Your task to perform on an android device: What's on my calendar today? Image 0: 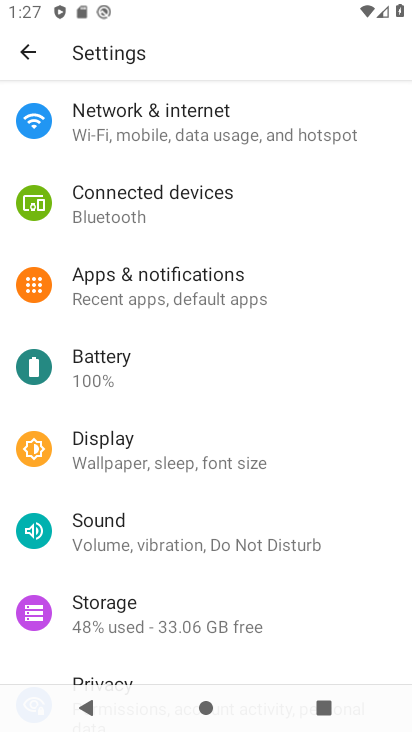
Step 0: press home button
Your task to perform on an android device: What's on my calendar today? Image 1: 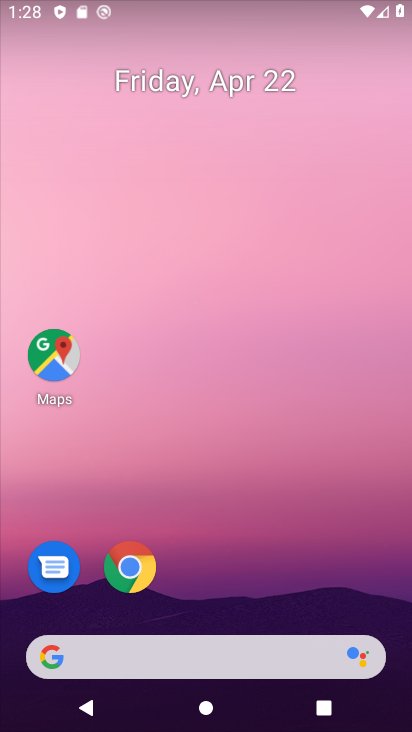
Step 1: drag from (271, 420) to (306, 52)
Your task to perform on an android device: What's on my calendar today? Image 2: 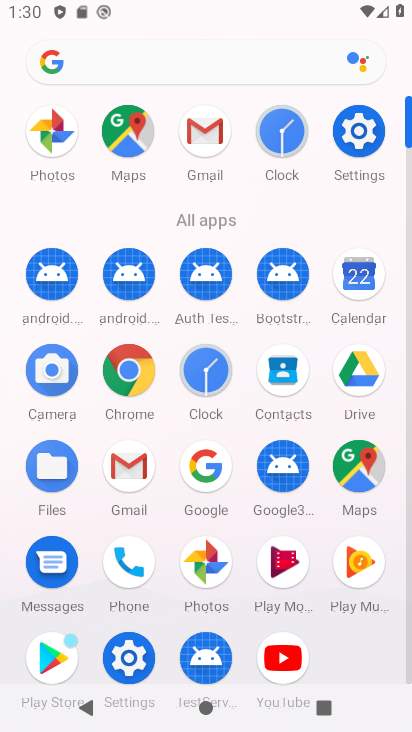
Step 2: click (353, 274)
Your task to perform on an android device: What's on my calendar today? Image 3: 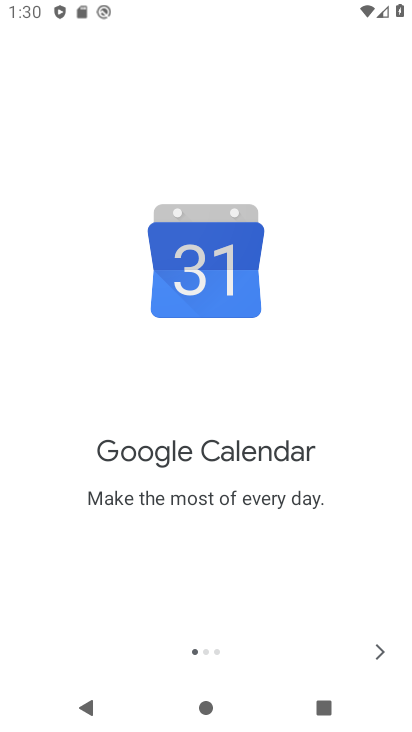
Step 3: click (380, 650)
Your task to perform on an android device: What's on my calendar today? Image 4: 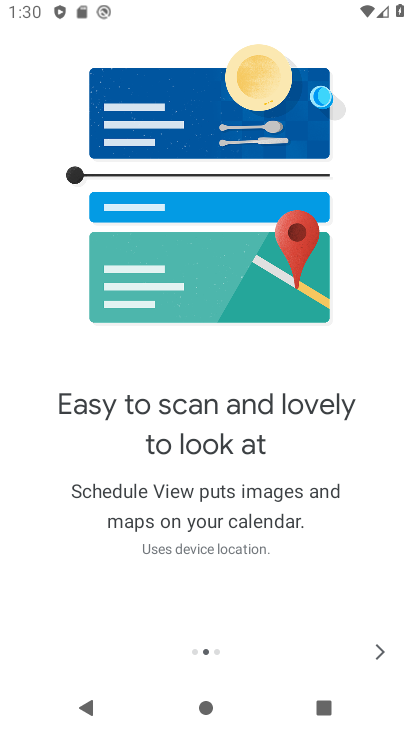
Step 4: click (380, 650)
Your task to perform on an android device: What's on my calendar today? Image 5: 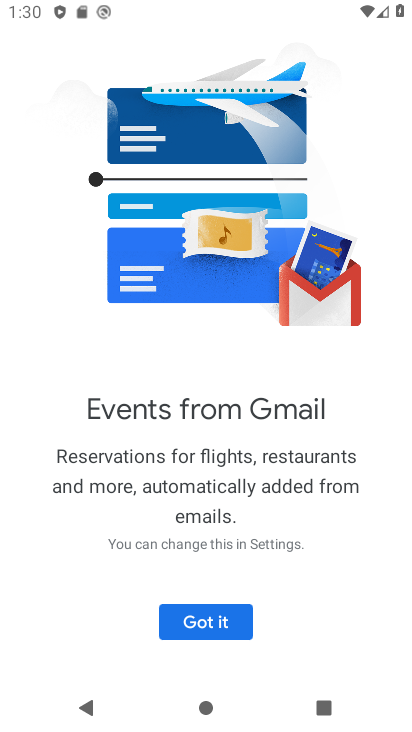
Step 5: click (231, 606)
Your task to perform on an android device: What's on my calendar today? Image 6: 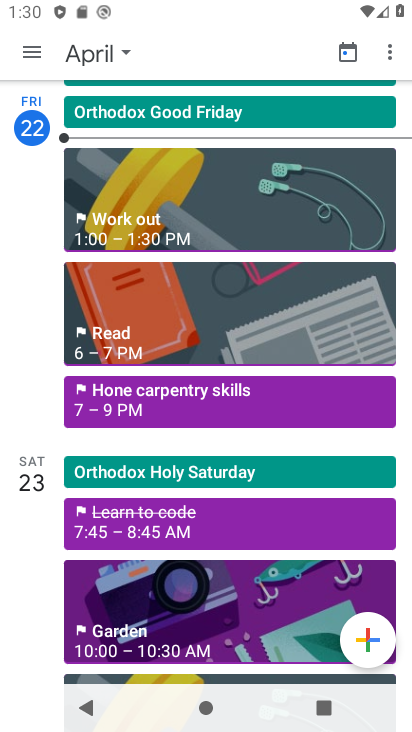
Step 6: task complete